Your task to perform on an android device: open app "Pandora - Music & Podcasts" Image 0: 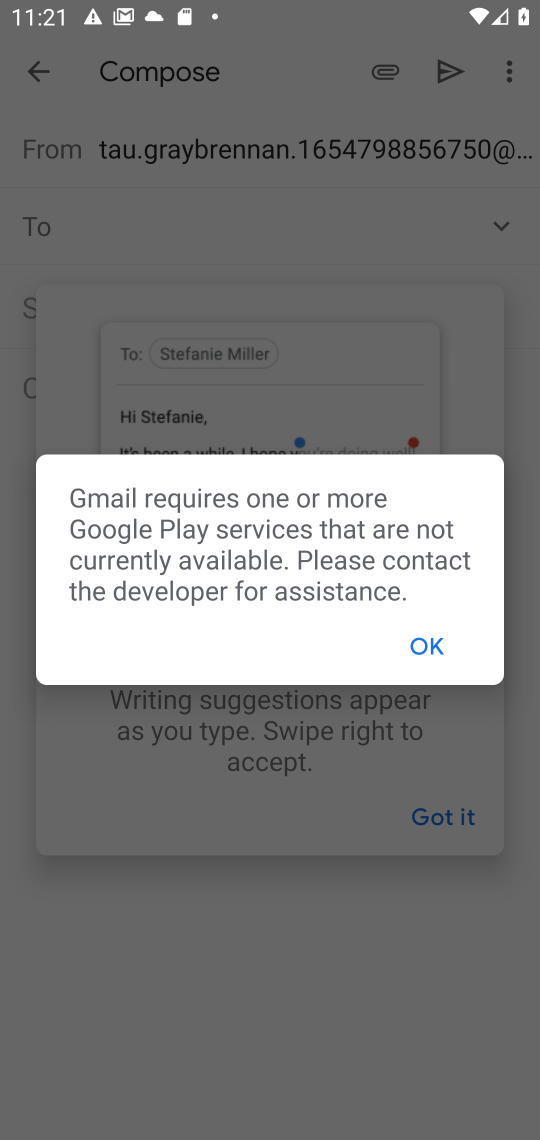
Step 0: press home button
Your task to perform on an android device: open app "Pandora - Music & Podcasts" Image 1: 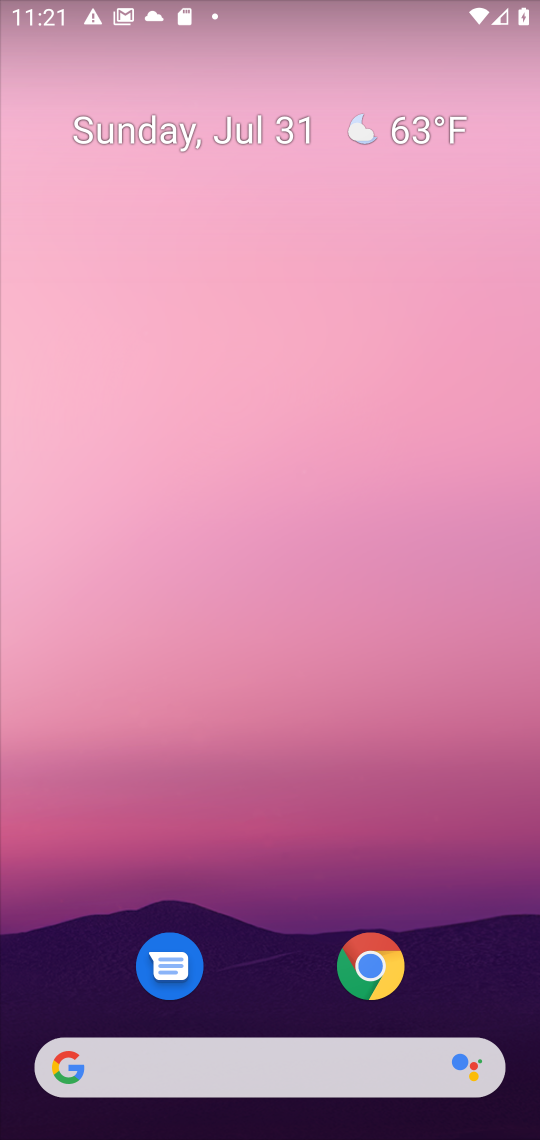
Step 1: drag from (255, 903) to (409, 21)
Your task to perform on an android device: open app "Pandora - Music & Podcasts" Image 2: 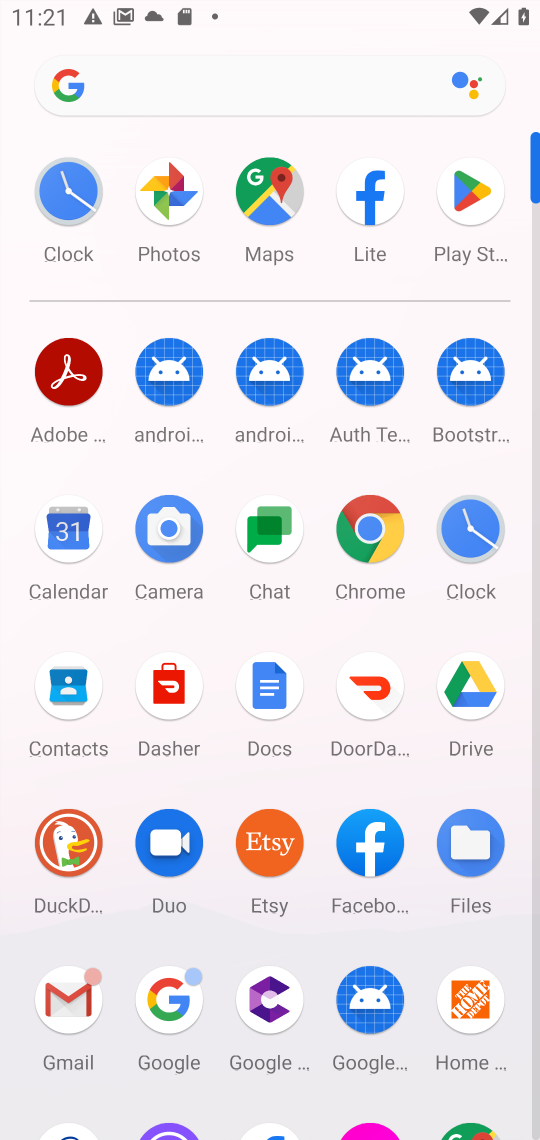
Step 2: click (484, 223)
Your task to perform on an android device: open app "Pandora - Music & Podcasts" Image 3: 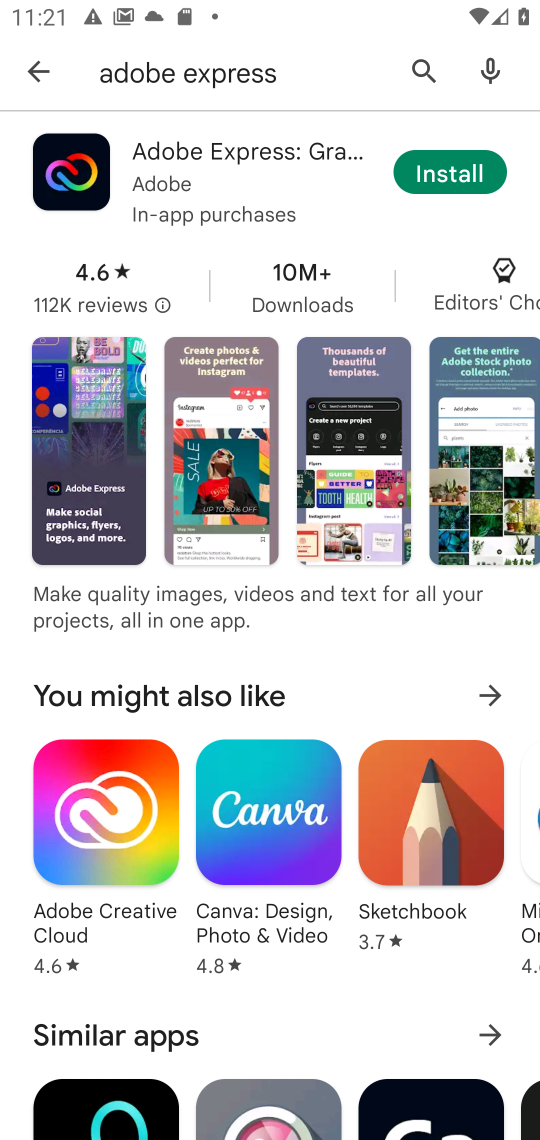
Step 3: click (271, 75)
Your task to perform on an android device: open app "Pandora - Music & Podcasts" Image 4: 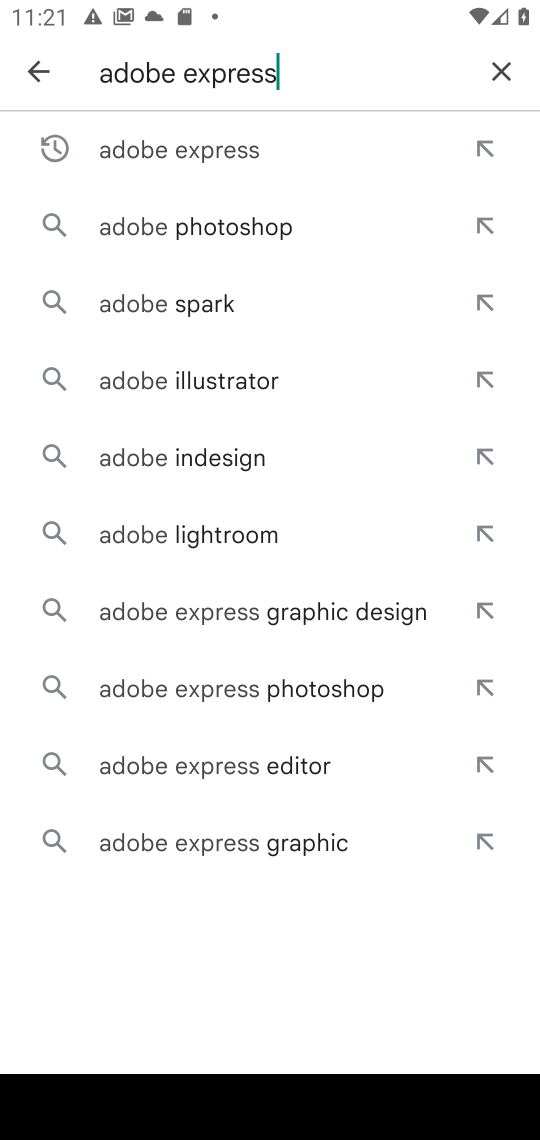
Step 4: click (516, 64)
Your task to perform on an android device: open app "Pandora - Music & Podcasts" Image 5: 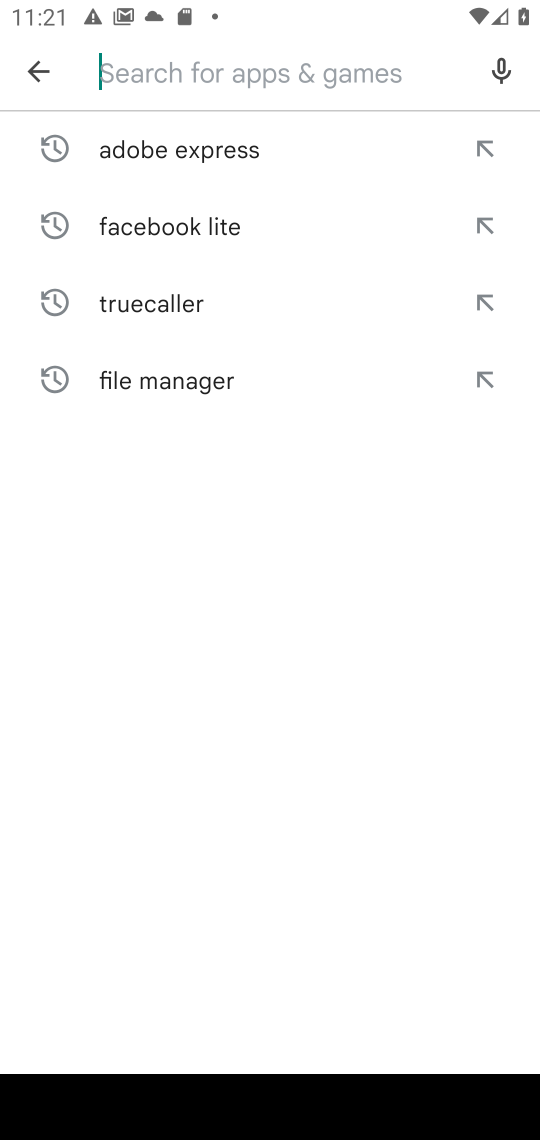
Step 5: type "Pandora"
Your task to perform on an android device: open app "Pandora - Music & Podcasts" Image 6: 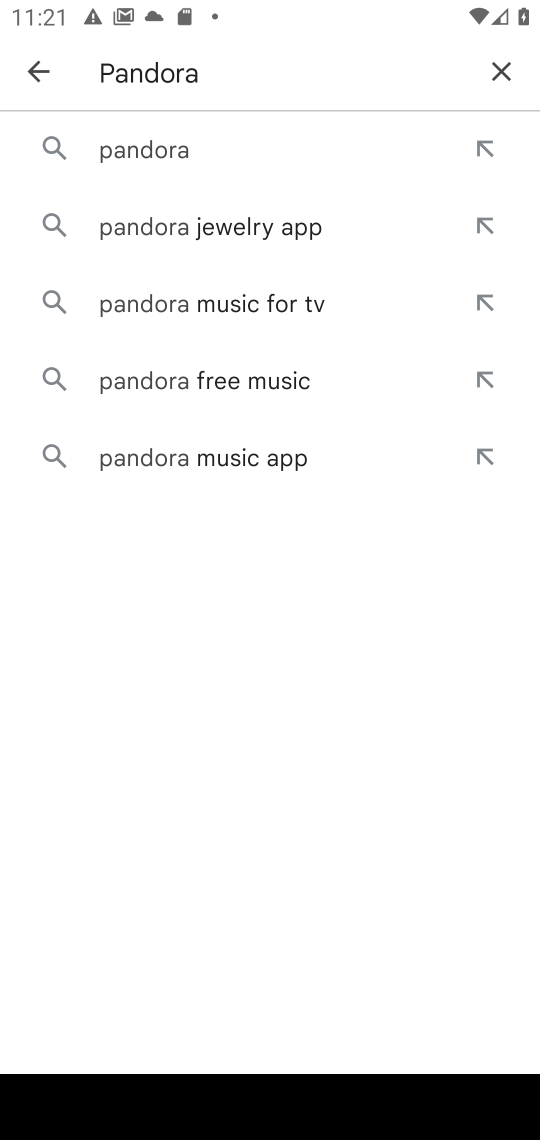
Step 6: click (201, 151)
Your task to perform on an android device: open app "Pandora - Music & Podcasts" Image 7: 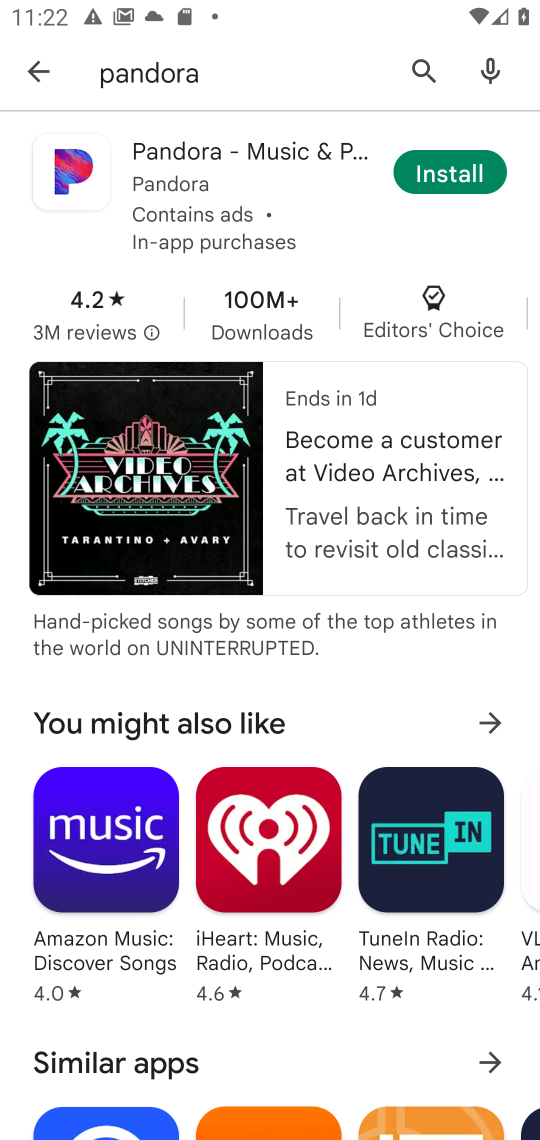
Step 7: task complete